Your task to perform on an android device: Show me popular games on the Play Store Image 0: 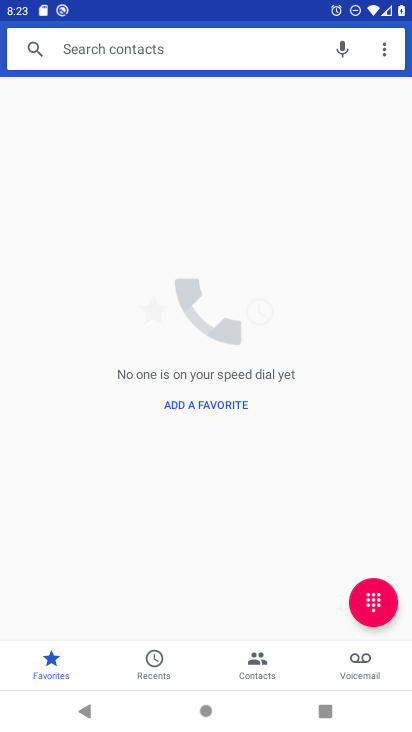
Step 0: press home button
Your task to perform on an android device: Show me popular games on the Play Store Image 1: 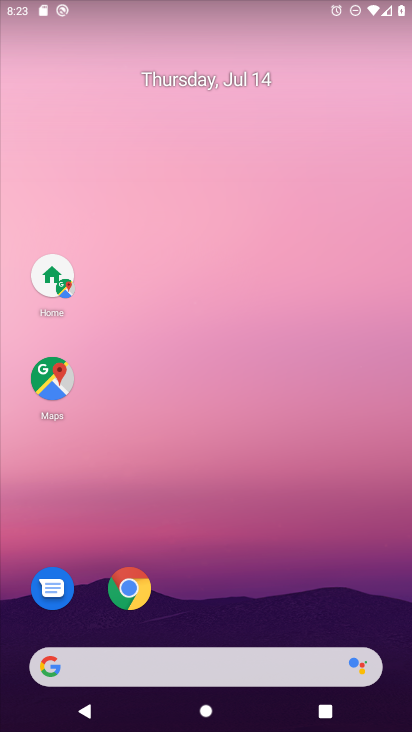
Step 1: drag from (28, 702) to (400, 158)
Your task to perform on an android device: Show me popular games on the Play Store Image 2: 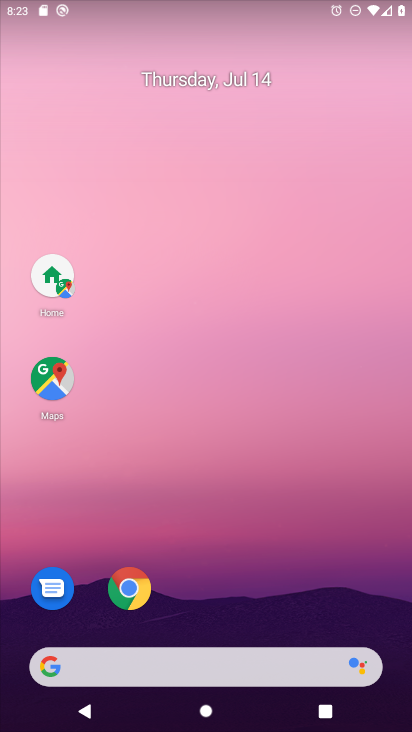
Step 2: drag from (39, 704) to (323, 19)
Your task to perform on an android device: Show me popular games on the Play Store Image 3: 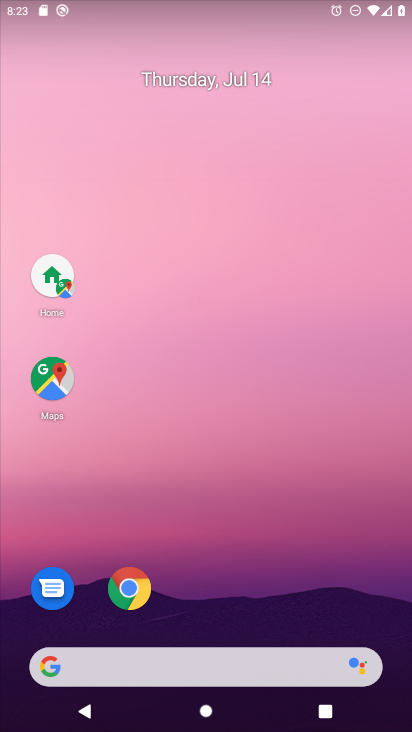
Step 3: drag from (48, 660) to (285, 0)
Your task to perform on an android device: Show me popular games on the Play Store Image 4: 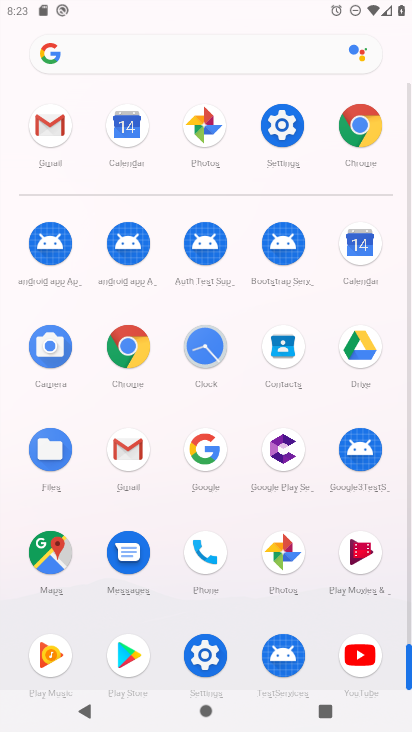
Step 4: click (125, 658)
Your task to perform on an android device: Show me popular games on the Play Store Image 5: 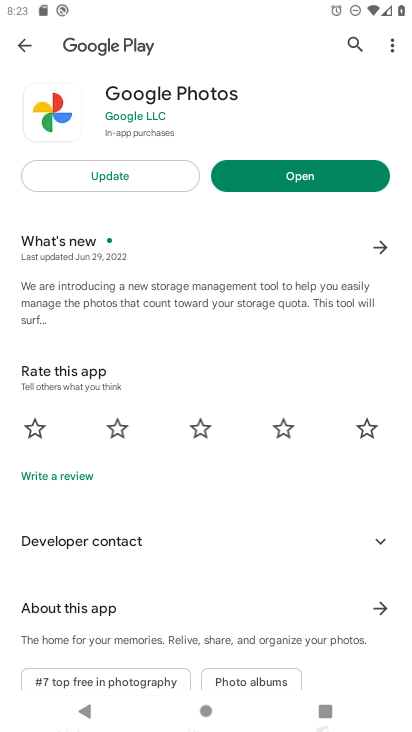
Step 5: click (16, 44)
Your task to perform on an android device: Show me popular games on the Play Store Image 6: 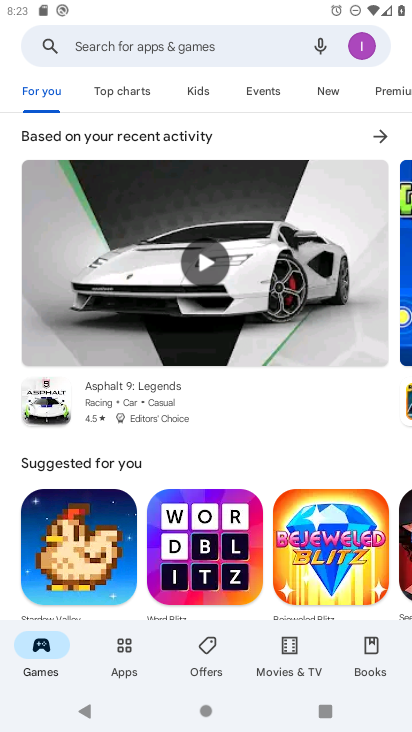
Step 6: click (109, 38)
Your task to perform on an android device: Show me popular games on the Play Store Image 7: 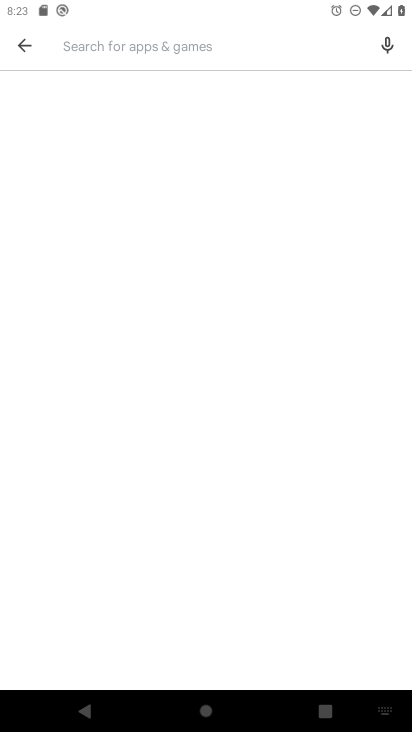
Step 7: type "popular games"
Your task to perform on an android device: Show me popular games on the Play Store Image 8: 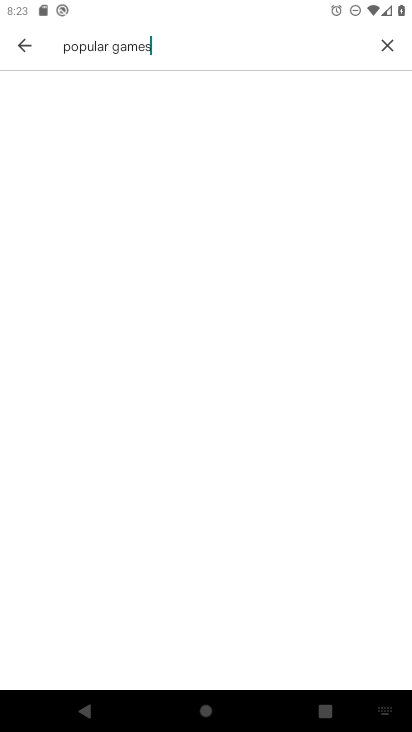
Step 8: type ""
Your task to perform on an android device: Show me popular games on the Play Store Image 9: 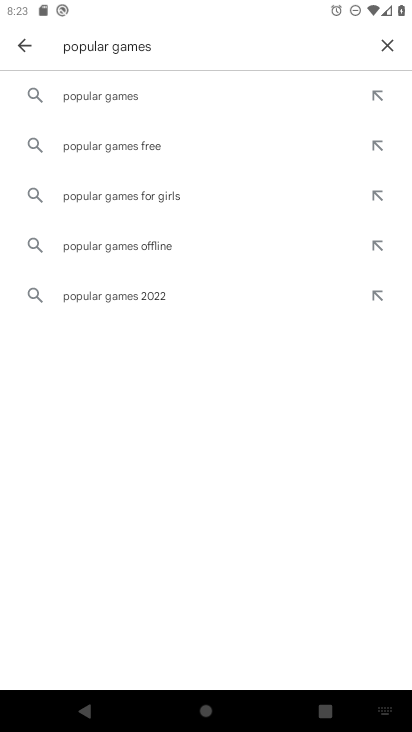
Step 9: click (128, 95)
Your task to perform on an android device: Show me popular games on the Play Store Image 10: 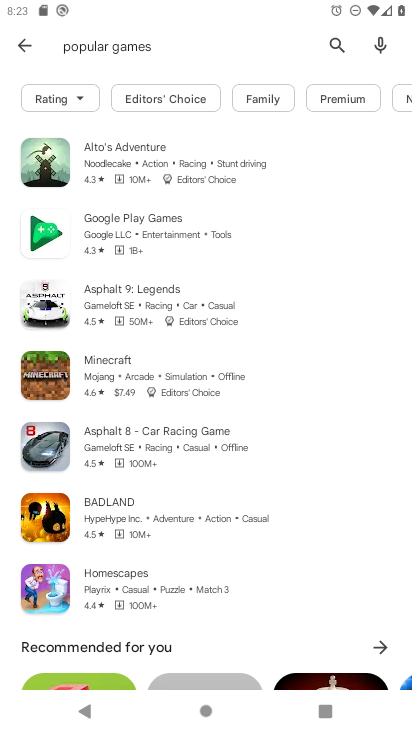
Step 10: task complete